Your task to perform on an android device: Open Youtube and go to "Your channel" Image 0: 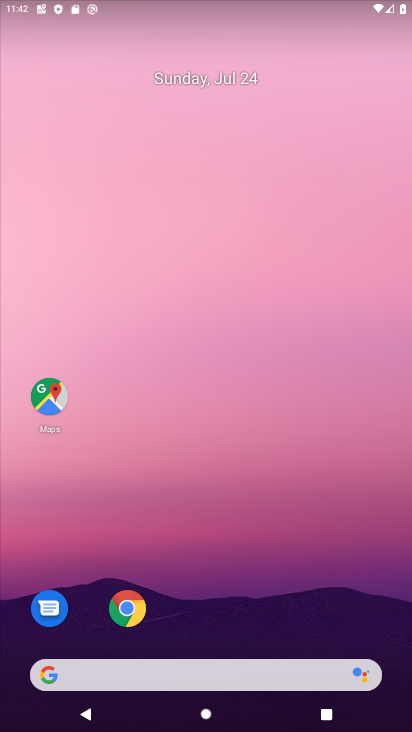
Step 0: drag from (254, 646) to (181, 5)
Your task to perform on an android device: Open Youtube and go to "Your channel" Image 1: 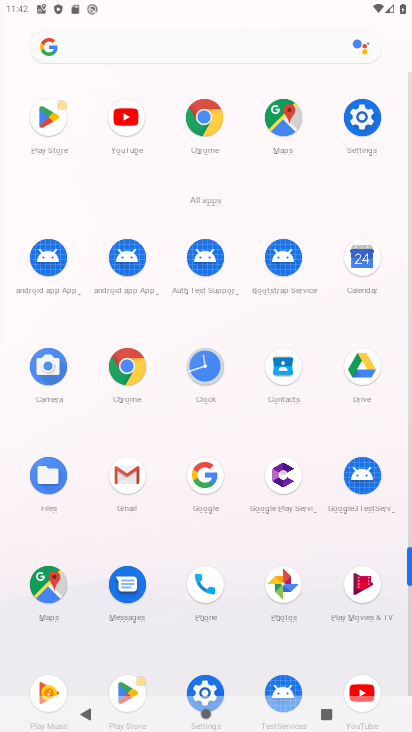
Step 1: click (351, 679)
Your task to perform on an android device: Open Youtube and go to "Your channel" Image 2: 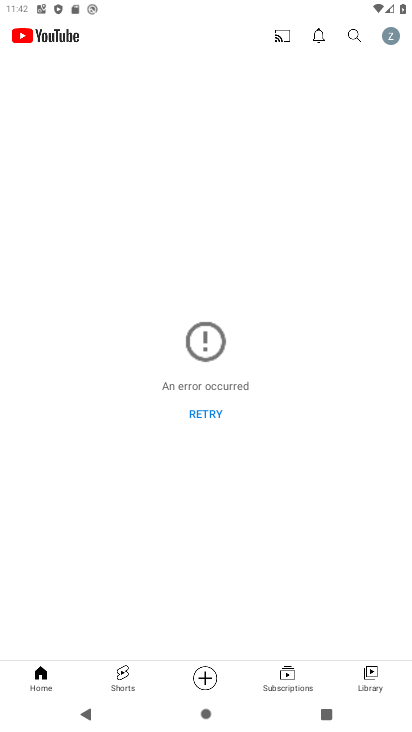
Step 2: click (395, 38)
Your task to perform on an android device: Open Youtube and go to "Your channel" Image 3: 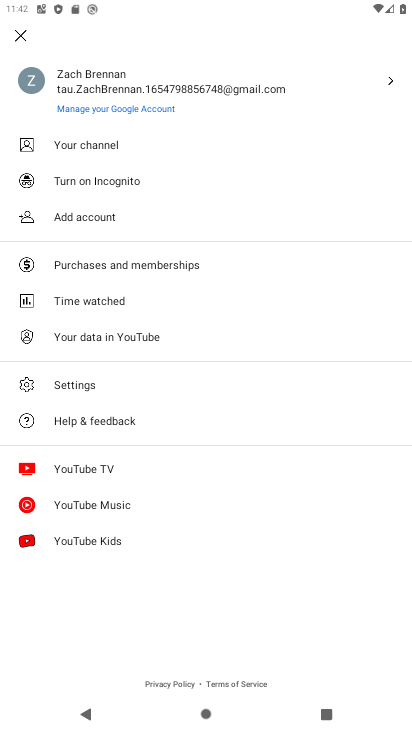
Step 3: click (81, 149)
Your task to perform on an android device: Open Youtube and go to "Your channel" Image 4: 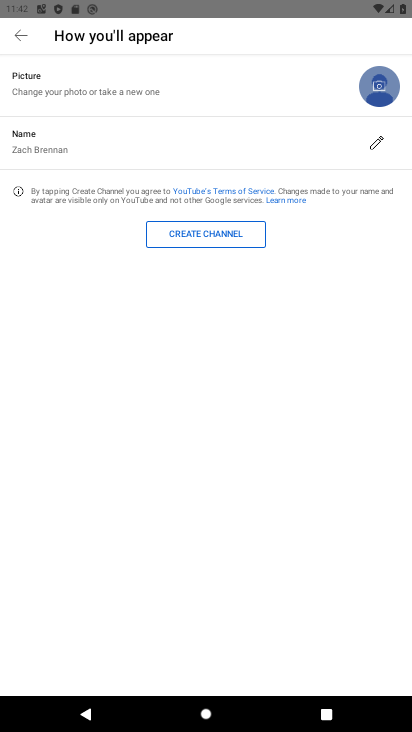
Step 4: task complete